Your task to perform on an android device: turn off location history Image 0: 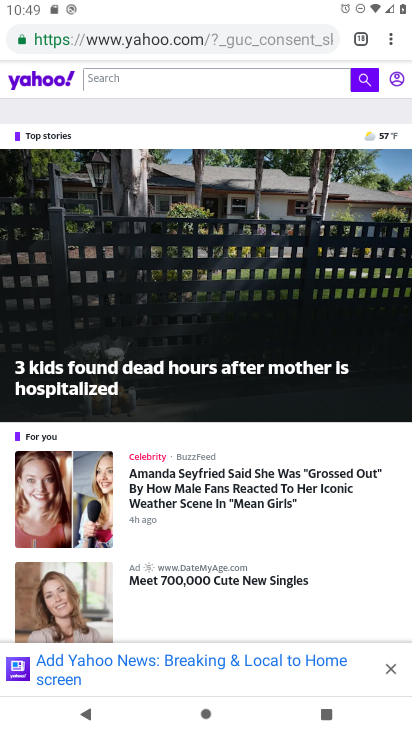
Step 0: press home button
Your task to perform on an android device: turn off location history Image 1: 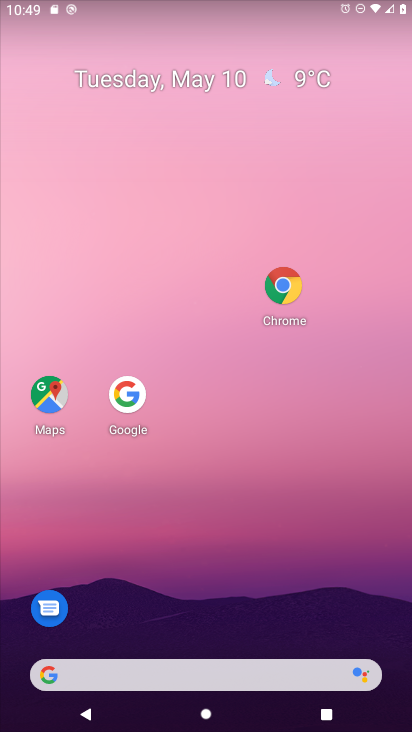
Step 1: drag from (145, 678) to (289, 172)
Your task to perform on an android device: turn off location history Image 2: 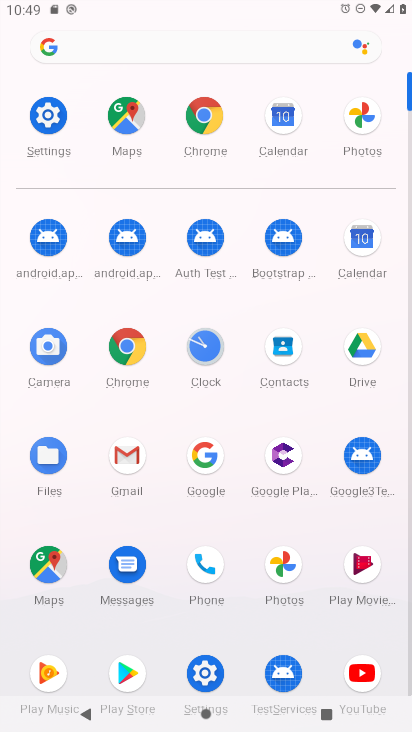
Step 2: click (44, 122)
Your task to perform on an android device: turn off location history Image 3: 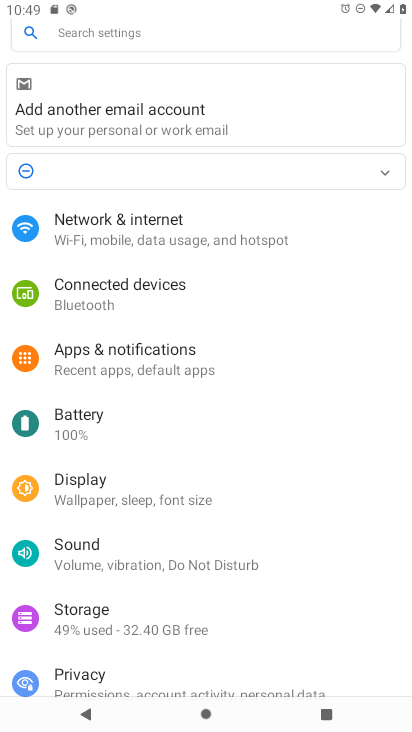
Step 3: drag from (210, 539) to (313, 303)
Your task to perform on an android device: turn off location history Image 4: 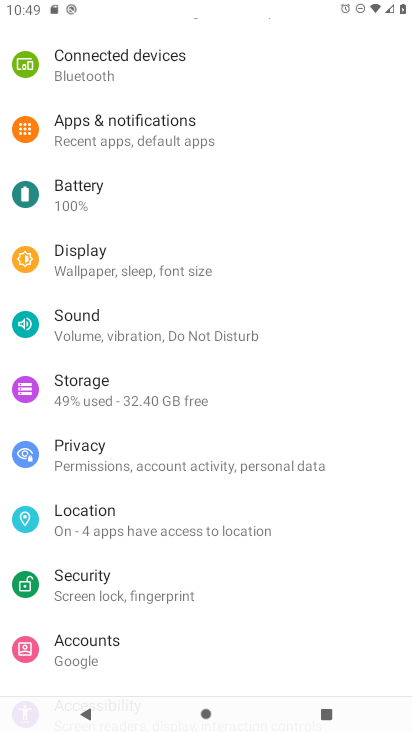
Step 4: click (112, 520)
Your task to perform on an android device: turn off location history Image 5: 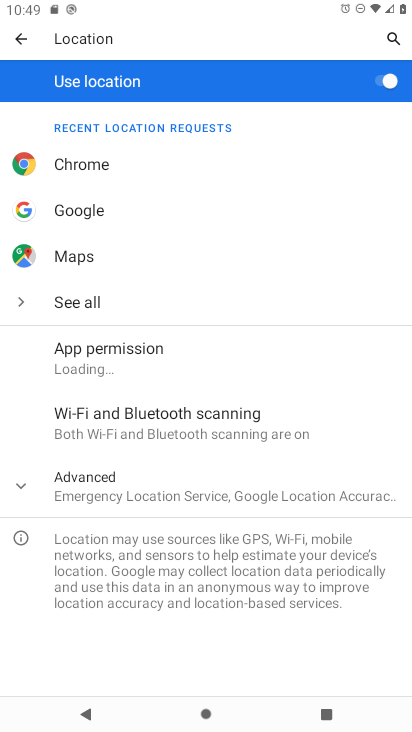
Step 5: click (376, 84)
Your task to perform on an android device: turn off location history Image 6: 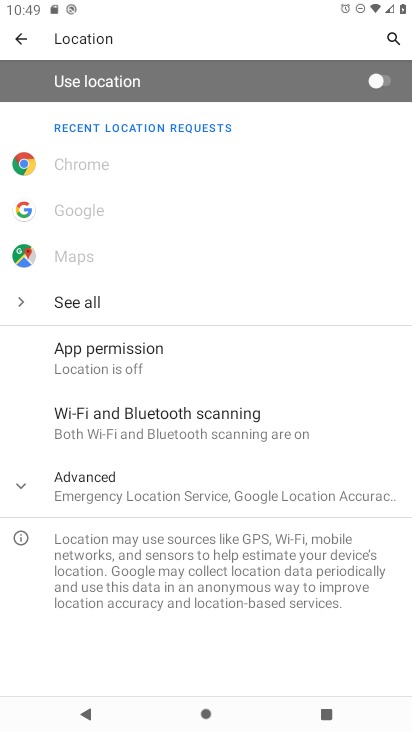
Step 6: task complete